Your task to perform on an android device: turn pop-ups off in chrome Image 0: 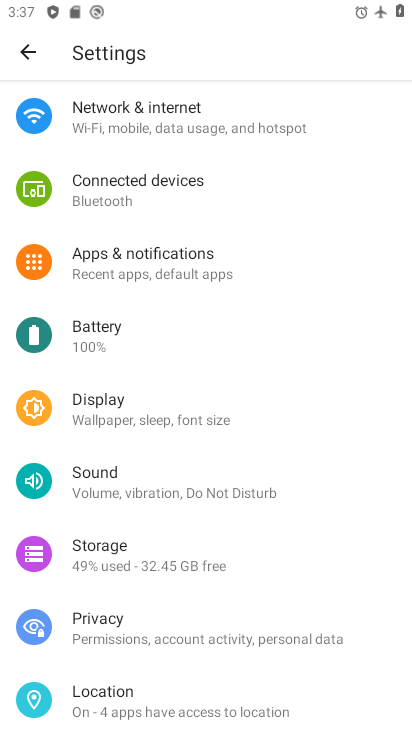
Step 0: press home button
Your task to perform on an android device: turn pop-ups off in chrome Image 1: 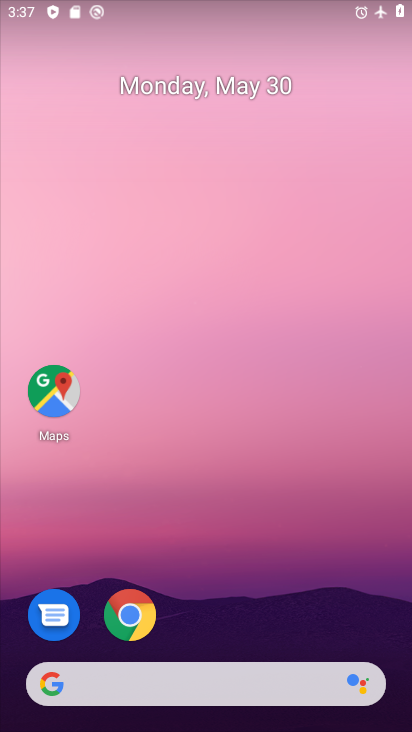
Step 1: click (129, 621)
Your task to perform on an android device: turn pop-ups off in chrome Image 2: 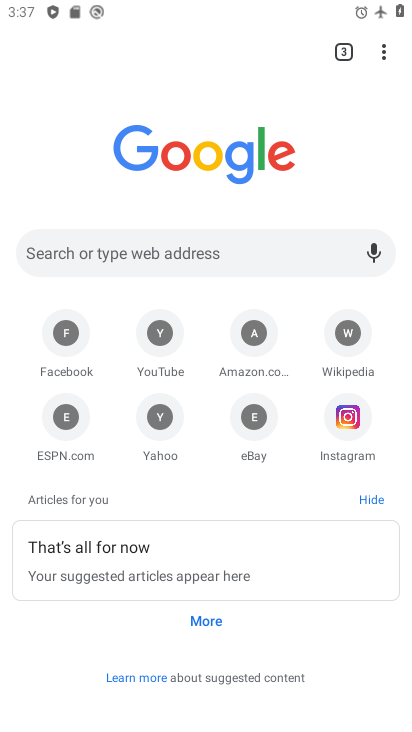
Step 2: click (385, 53)
Your task to perform on an android device: turn pop-ups off in chrome Image 3: 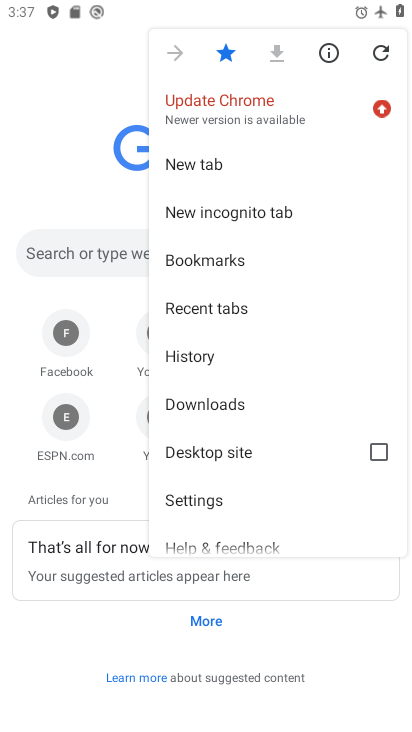
Step 3: click (260, 495)
Your task to perform on an android device: turn pop-ups off in chrome Image 4: 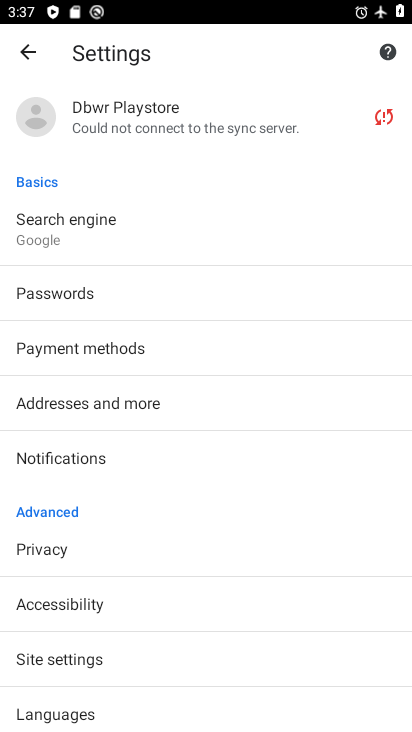
Step 4: click (185, 652)
Your task to perform on an android device: turn pop-ups off in chrome Image 5: 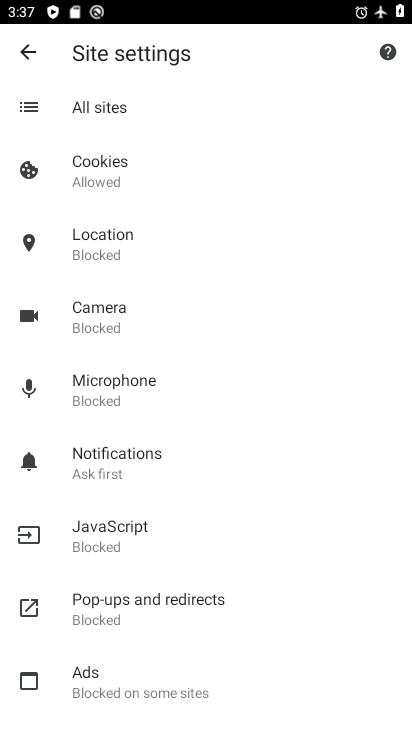
Step 5: click (227, 598)
Your task to perform on an android device: turn pop-ups off in chrome Image 6: 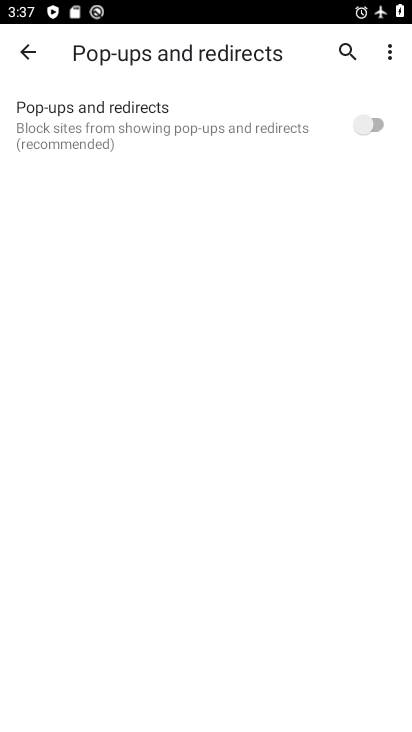
Step 6: task complete